Your task to perform on an android device: Play the last video I watched on Youtube Image 0: 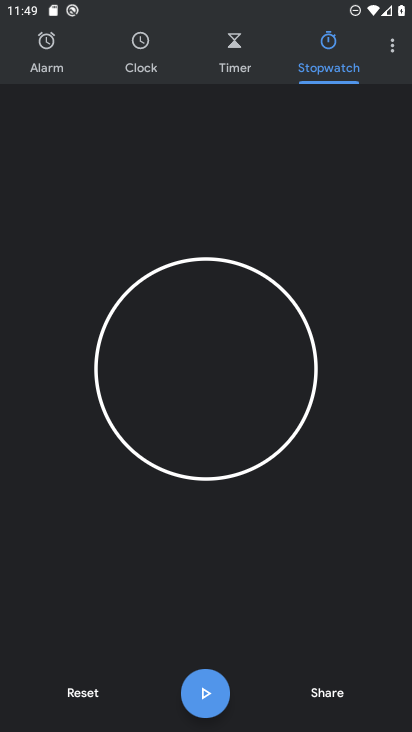
Step 0: press home button
Your task to perform on an android device: Play the last video I watched on Youtube Image 1: 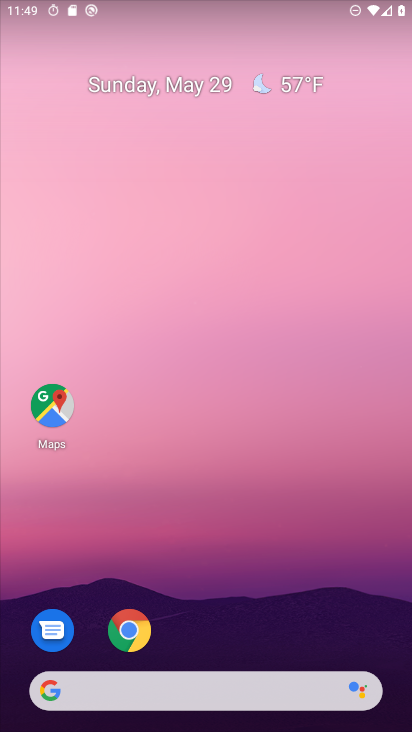
Step 1: drag from (336, 699) to (386, 229)
Your task to perform on an android device: Play the last video I watched on Youtube Image 2: 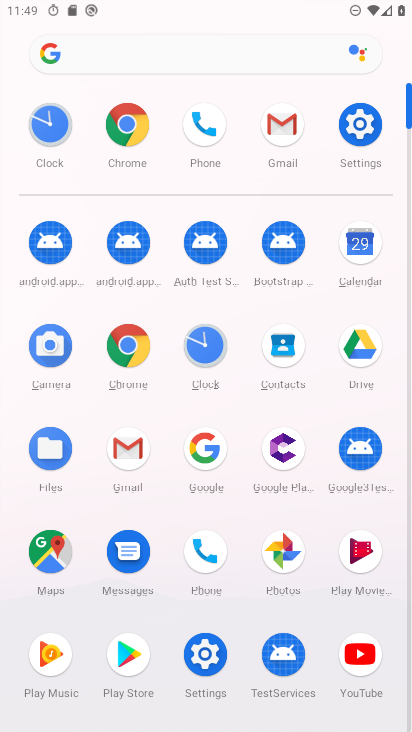
Step 2: click (368, 650)
Your task to perform on an android device: Play the last video I watched on Youtube Image 3: 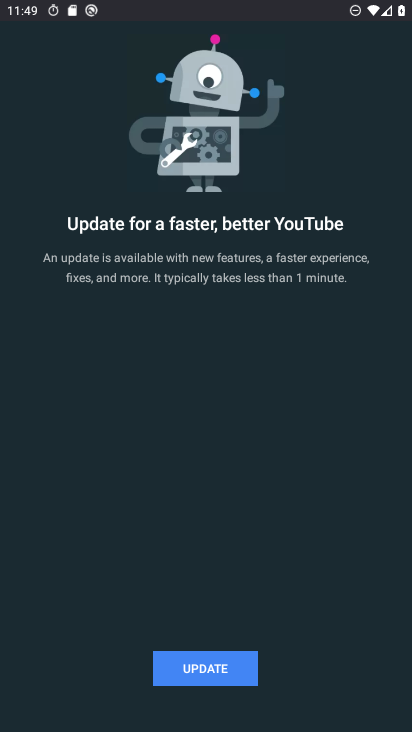
Step 3: click (195, 679)
Your task to perform on an android device: Play the last video I watched on Youtube Image 4: 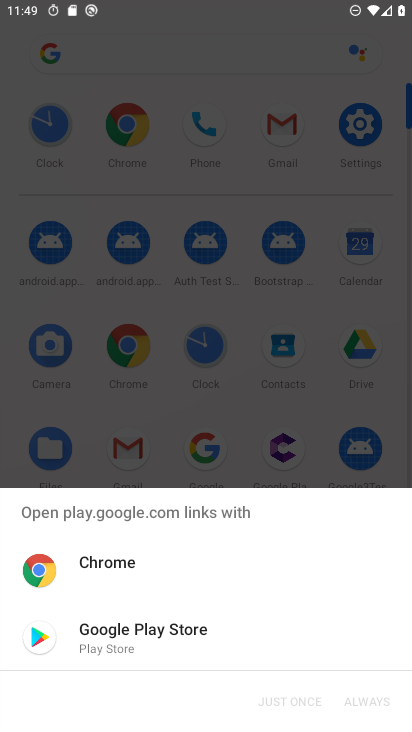
Step 4: click (142, 632)
Your task to perform on an android device: Play the last video I watched on Youtube Image 5: 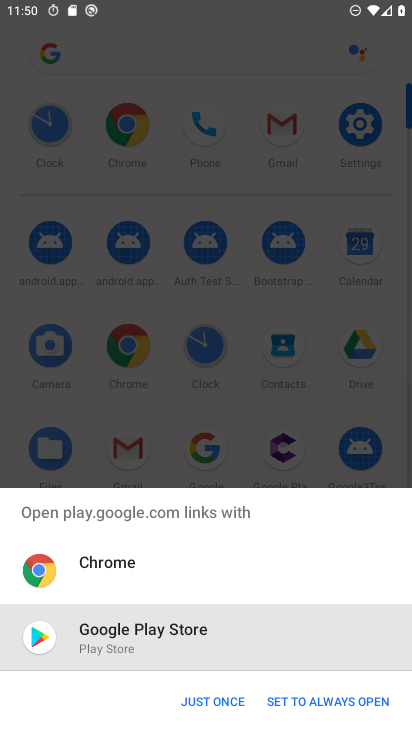
Step 5: click (212, 707)
Your task to perform on an android device: Play the last video I watched on Youtube Image 6: 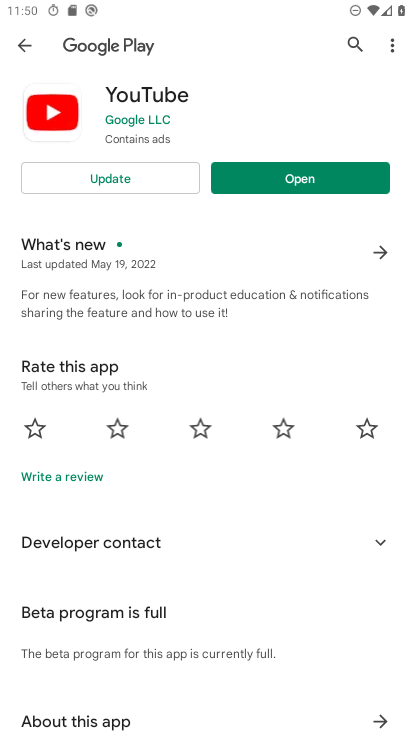
Step 6: click (128, 169)
Your task to perform on an android device: Play the last video I watched on Youtube Image 7: 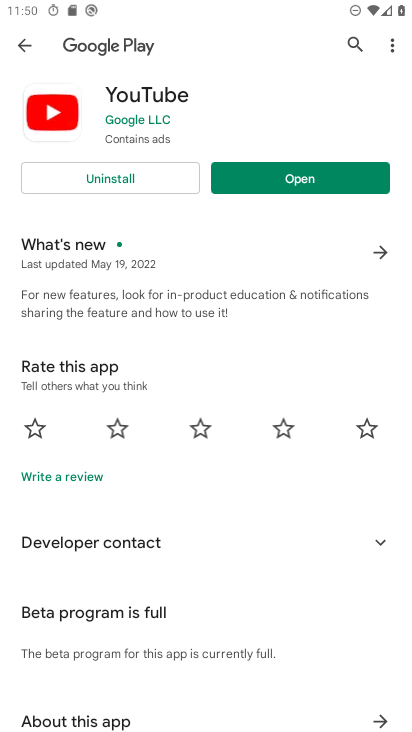
Step 7: click (278, 184)
Your task to perform on an android device: Play the last video I watched on Youtube Image 8: 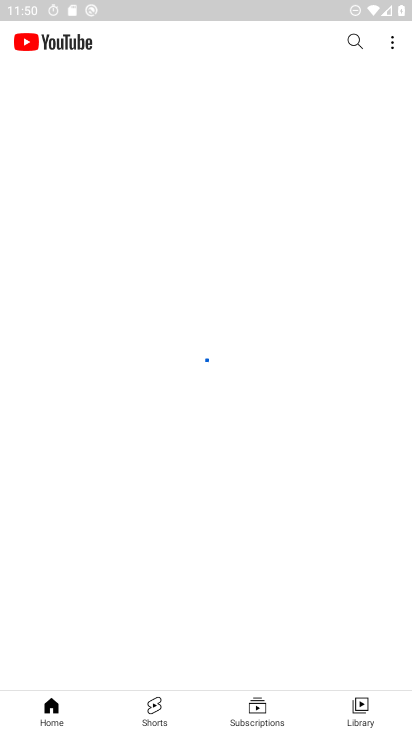
Step 8: click (364, 703)
Your task to perform on an android device: Play the last video I watched on Youtube Image 9: 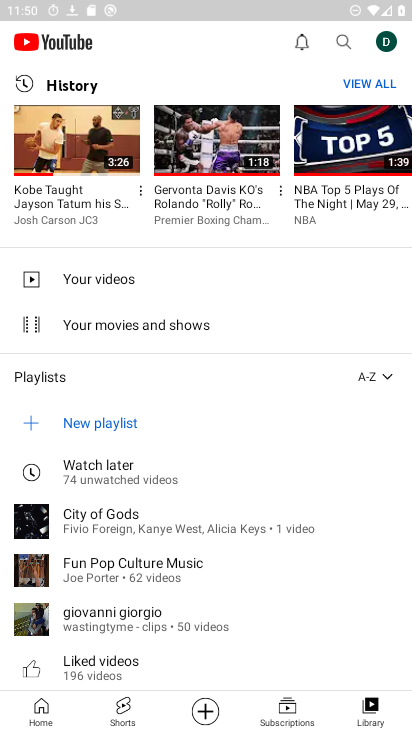
Step 9: click (94, 168)
Your task to perform on an android device: Play the last video I watched on Youtube Image 10: 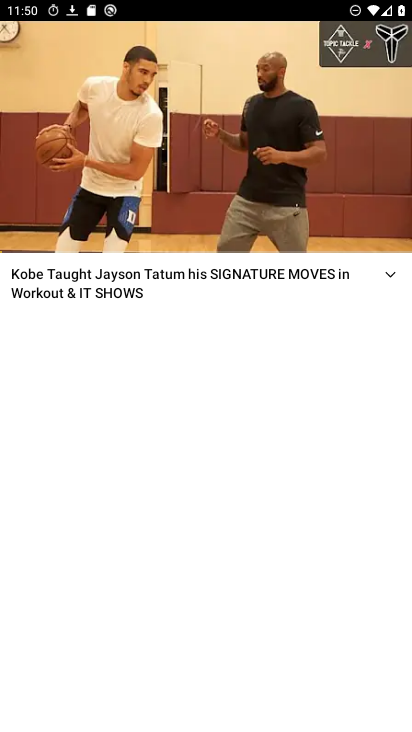
Step 10: click (189, 165)
Your task to perform on an android device: Play the last video I watched on Youtube Image 11: 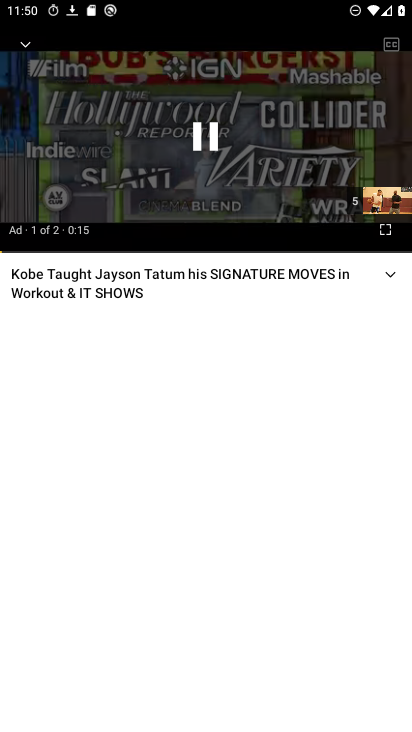
Step 11: click (200, 149)
Your task to perform on an android device: Play the last video I watched on Youtube Image 12: 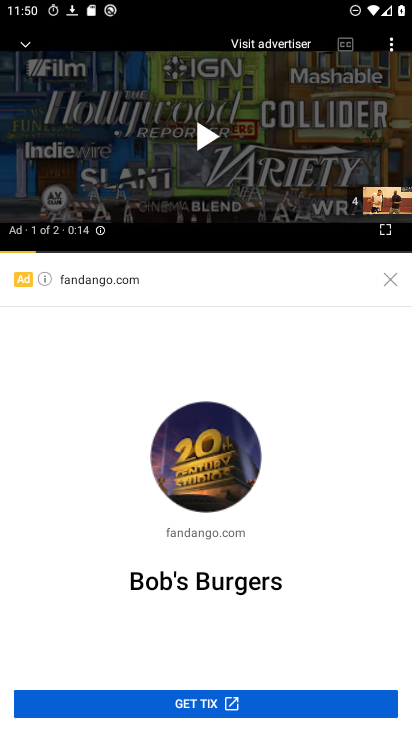
Step 12: task complete